Your task to perform on an android device: Open accessibility settings Image 0: 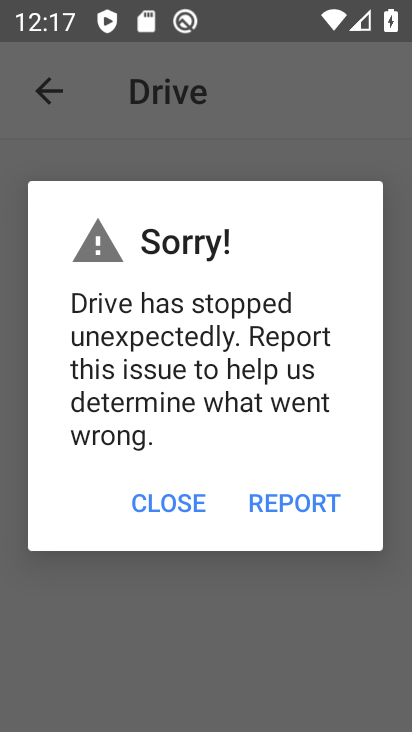
Step 0: drag from (343, 595) to (295, 144)
Your task to perform on an android device: Open accessibility settings Image 1: 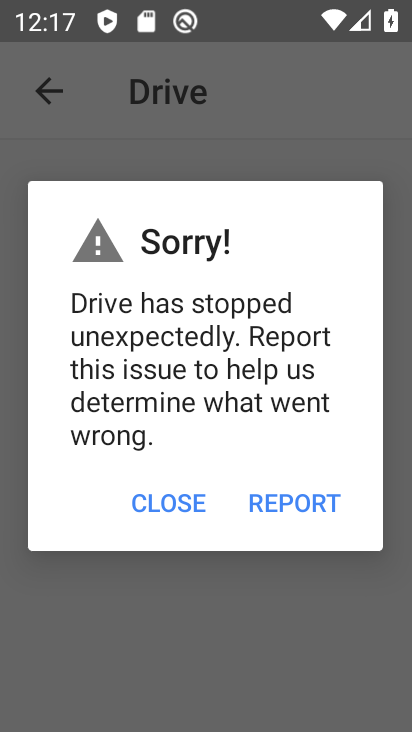
Step 1: press home button
Your task to perform on an android device: Open accessibility settings Image 2: 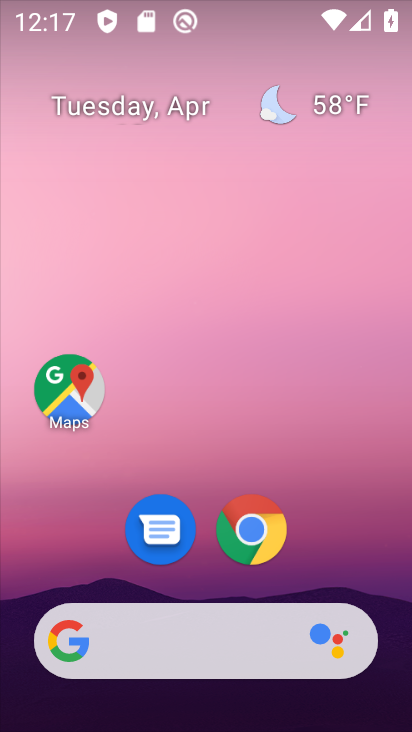
Step 2: drag from (377, 598) to (318, 82)
Your task to perform on an android device: Open accessibility settings Image 3: 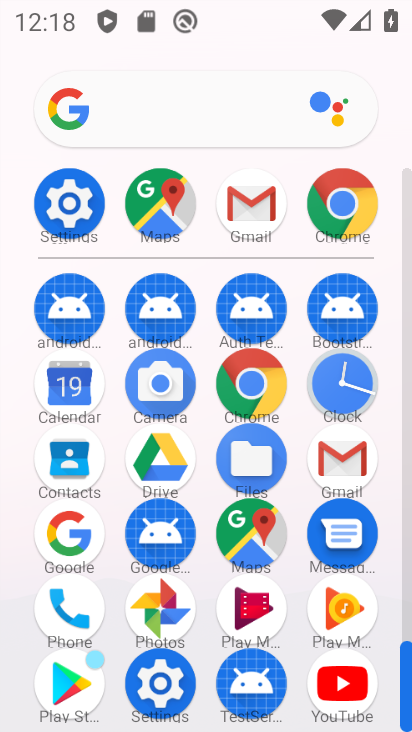
Step 3: click (60, 195)
Your task to perform on an android device: Open accessibility settings Image 4: 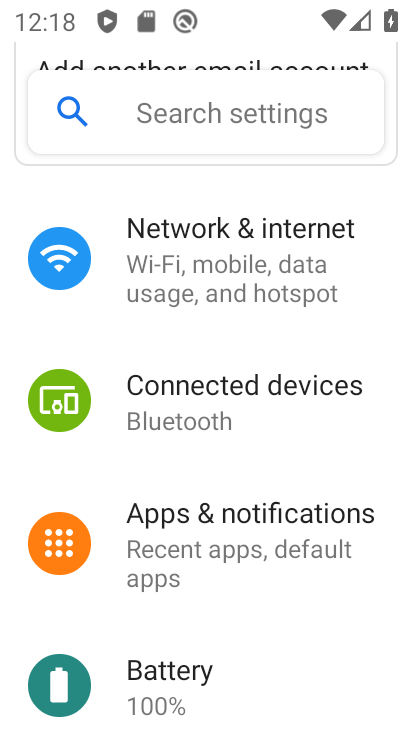
Step 4: drag from (173, 624) to (250, 78)
Your task to perform on an android device: Open accessibility settings Image 5: 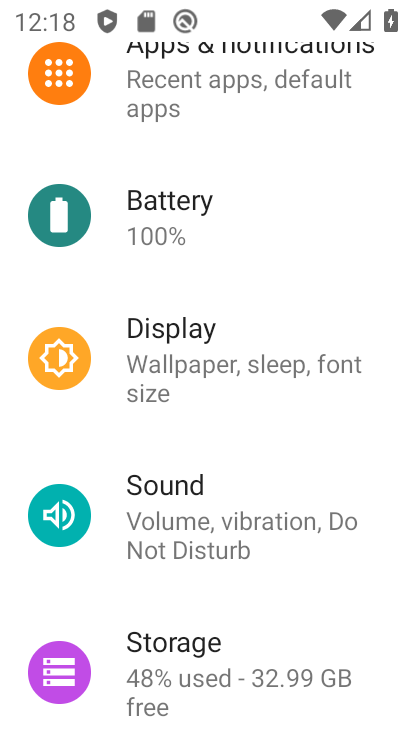
Step 5: drag from (169, 604) to (252, 78)
Your task to perform on an android device: Open accessibility settings Image 6: 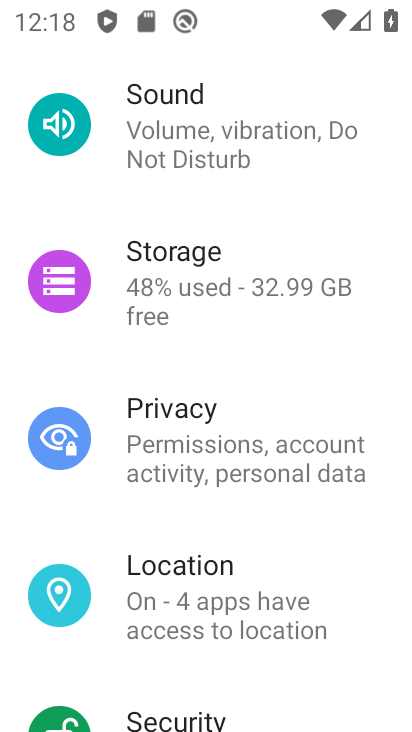
Step 6: drag from (165, 638) to (253, 92)
Your task to perform on an android device: Open accessibility settings Image 7: 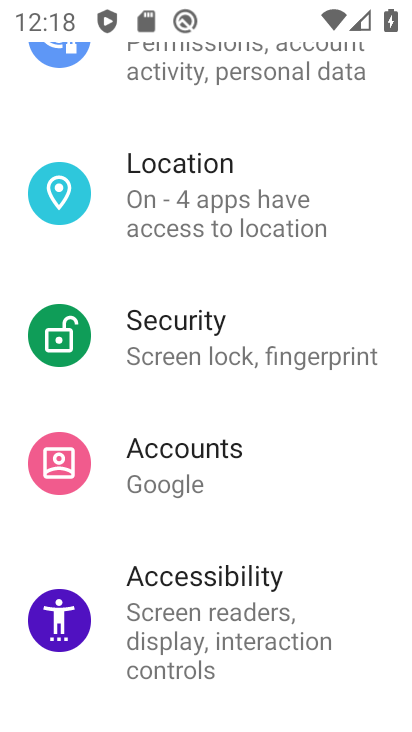
Step 7: click (258, 601)
Your task to perform on an android device: Open accessibility settings Image 8: 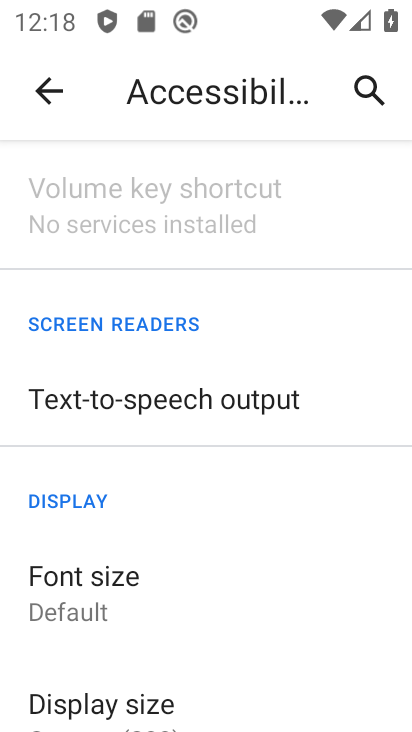
Step 8: task complete